Your task to perform on an android device: Who is the prime minister of the United Kingdom? Image 0: 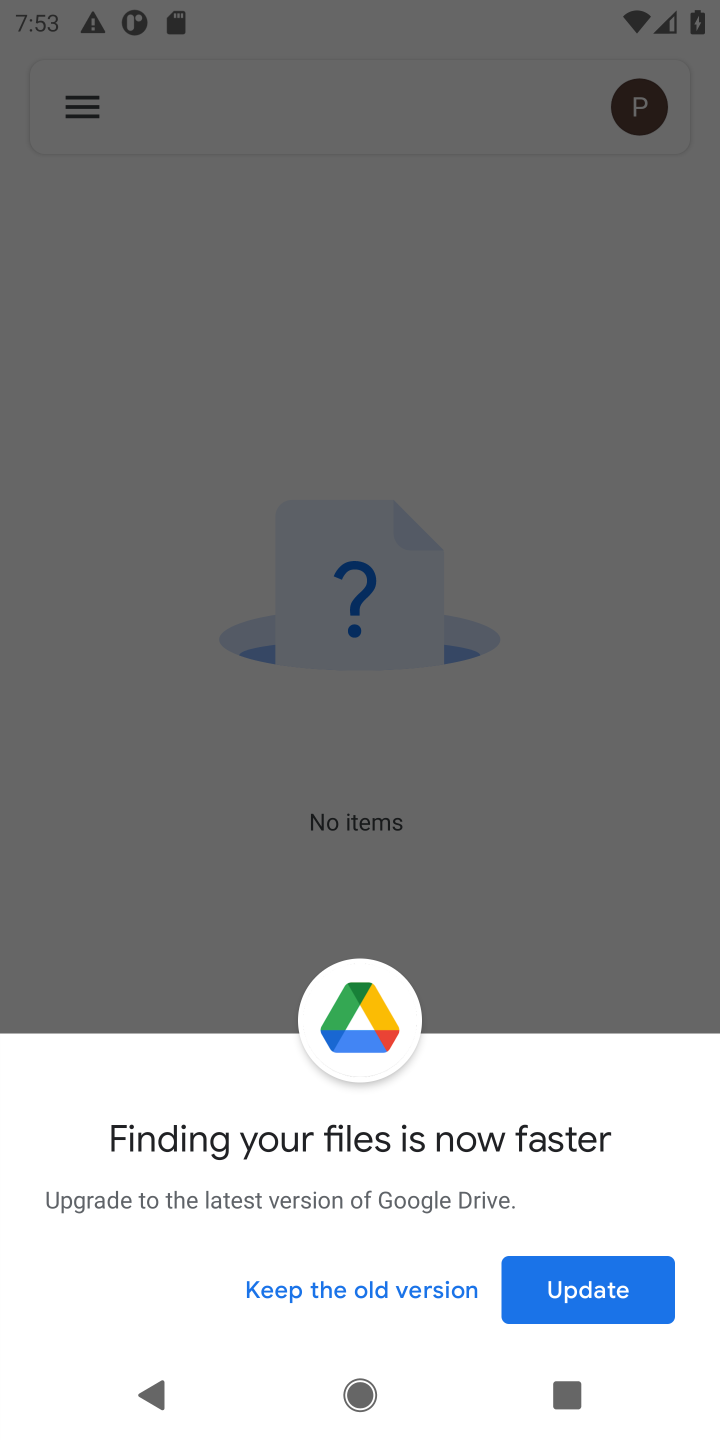
Step 0: press home button
Your task to perform on an android device: Who is the prime minister of the United Kingdom? Image 1: 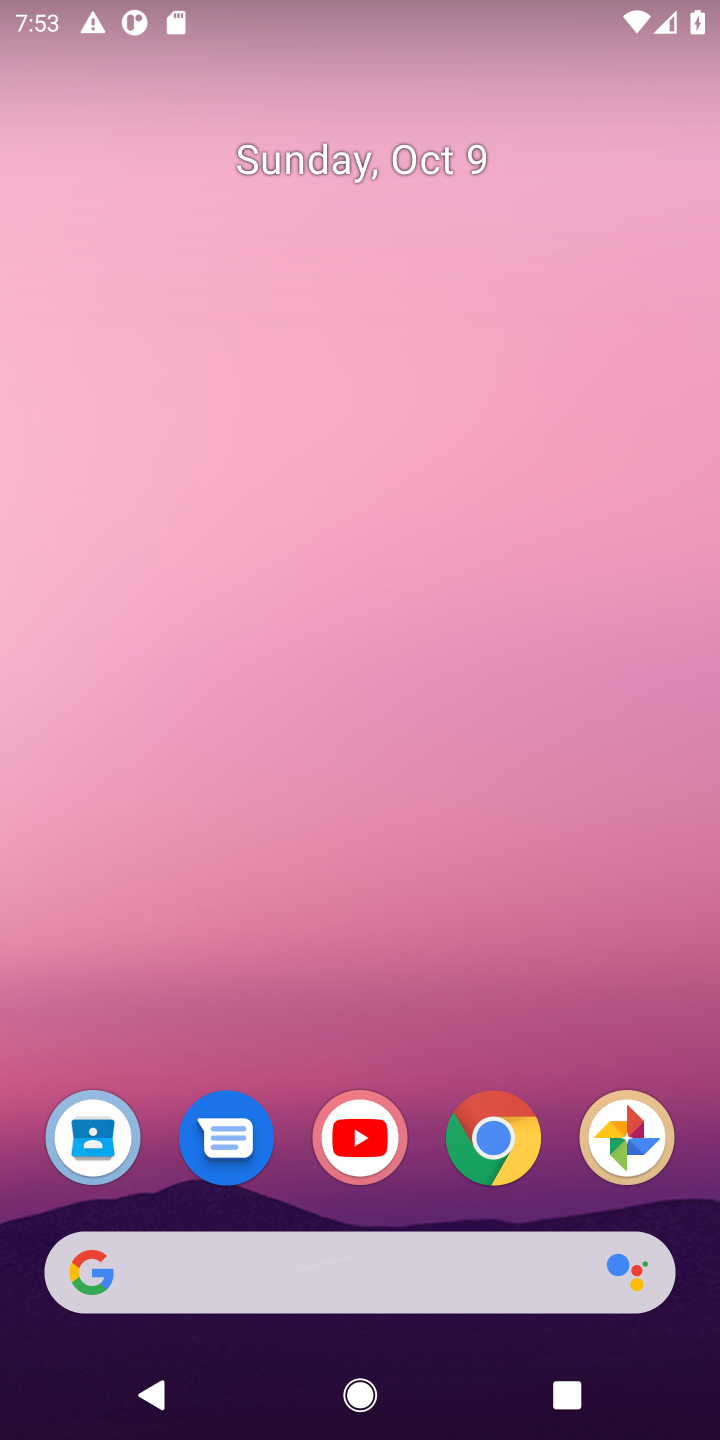
Step 1: drag from (356, 954) to (368, 302)
Your task to perform on an android device: Who is the prime minister of the United Kingdom? Image 2: 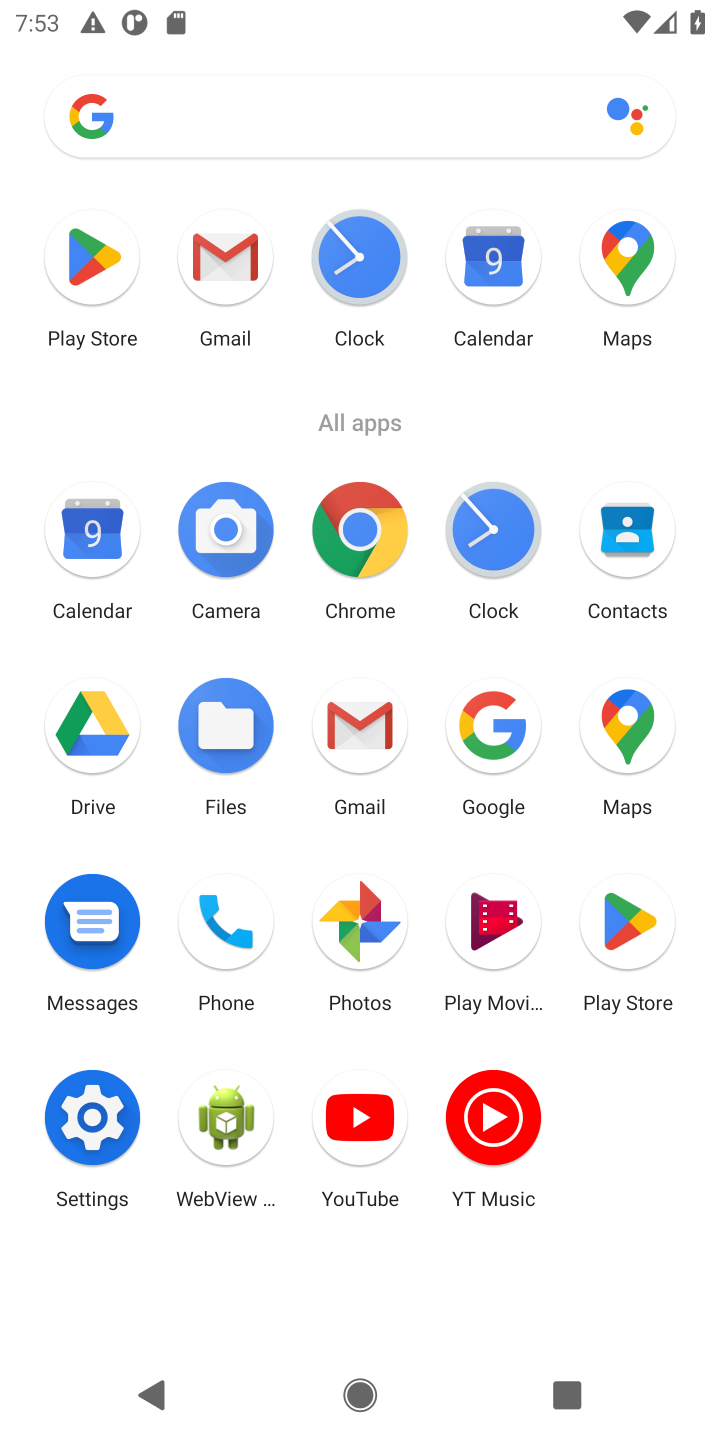
Step 2: click (471, 726)
Your task to perform on an android device: Who is the prime minister of the United Kingdom? Image 3: 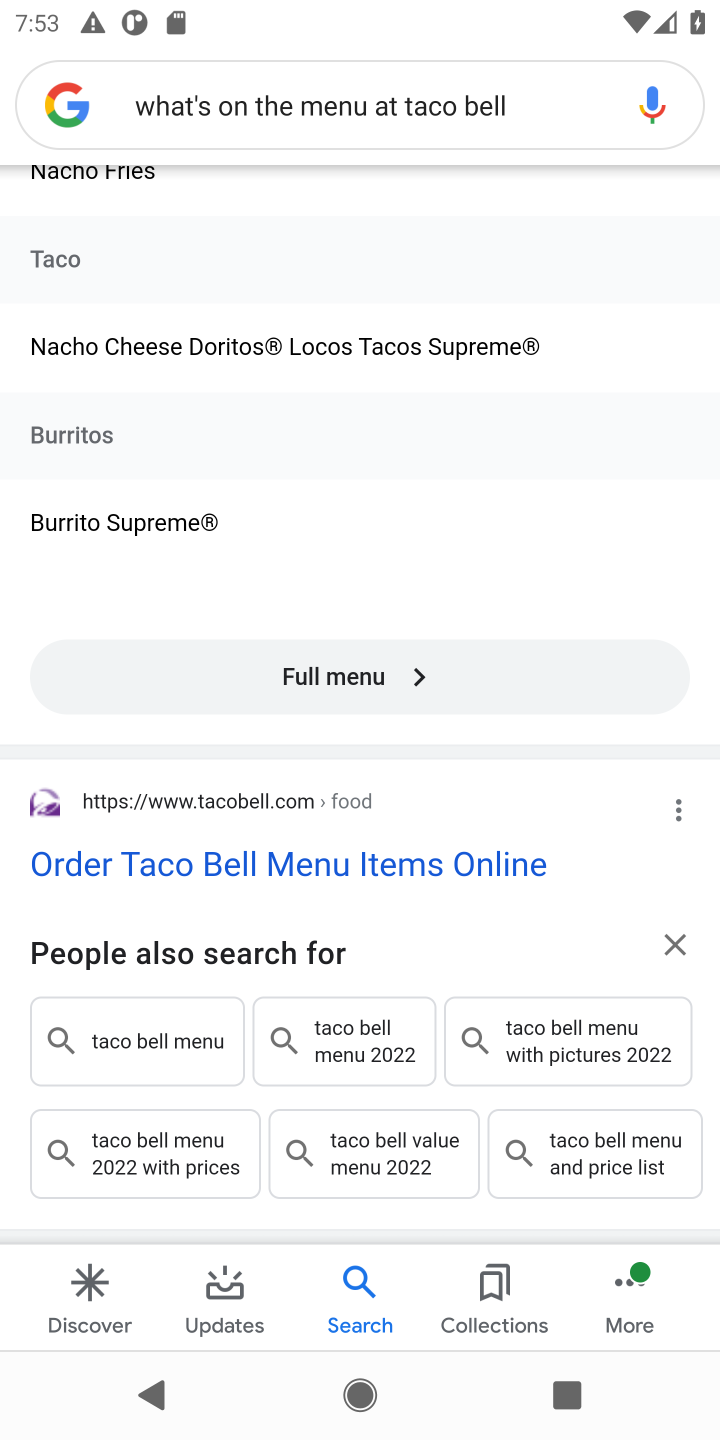
Step 3: click (508, 103)
Your task to perform on an android device: Who is the prime minister of the United Kingdom? Image 4: 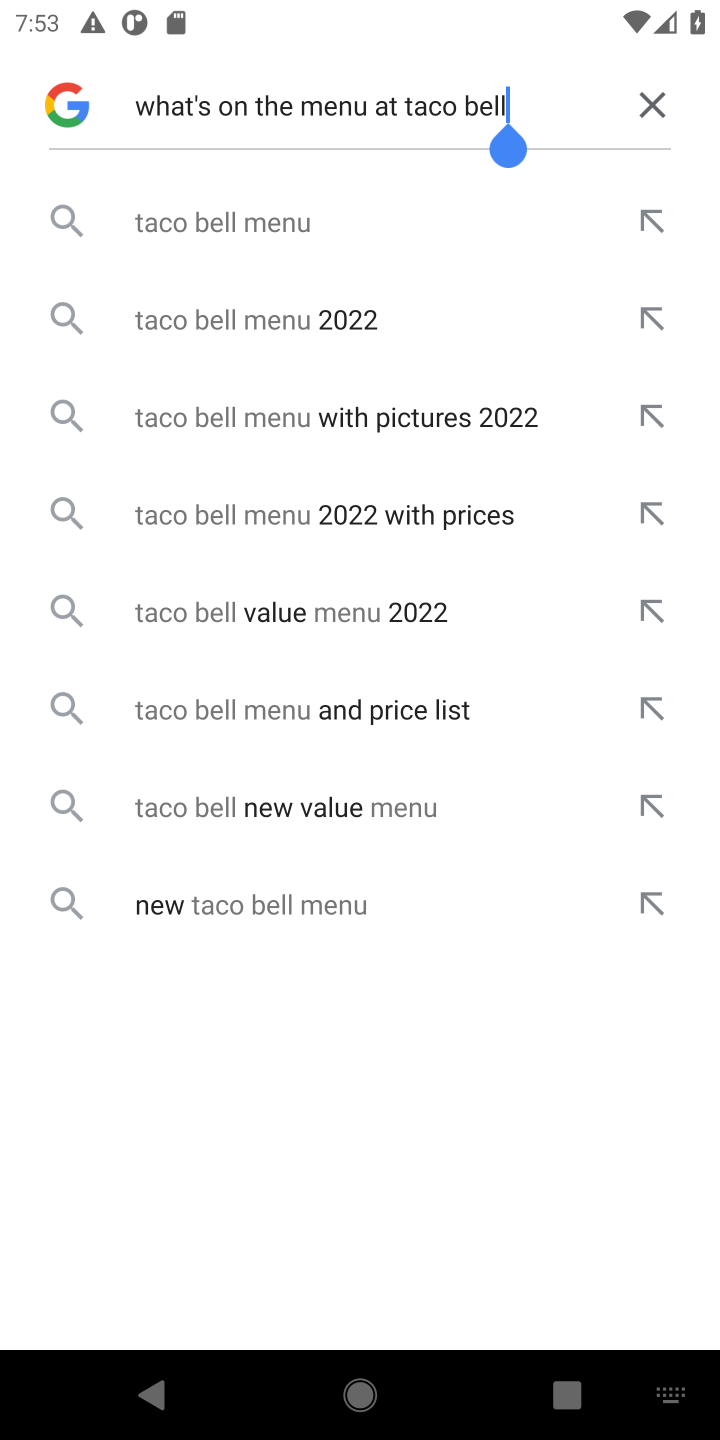
Step 4: click (648, 95)
Your task to perform on an android device: Who is the prime minister of the United Kingdom? Image 5: 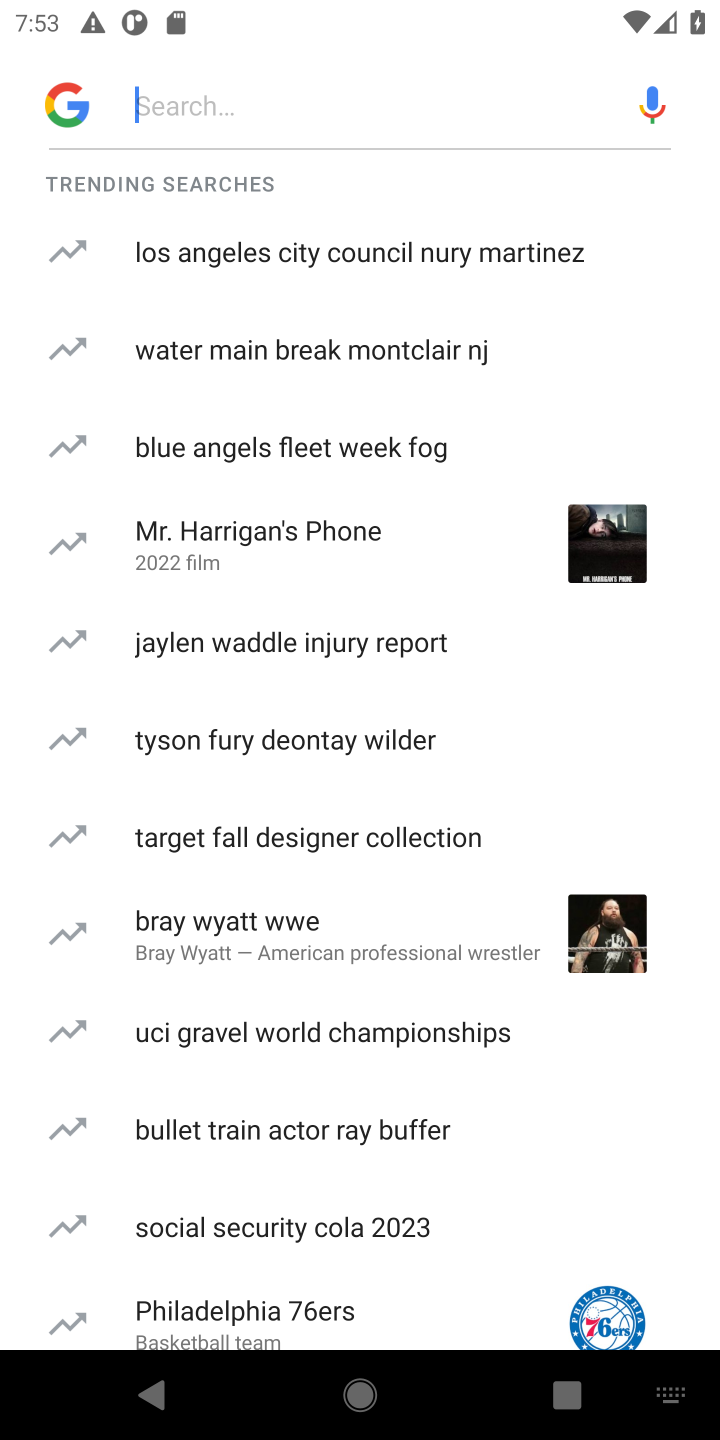
Step 5: click (255, 98)
Your task to perform on an android device: Who is the prime minister of the United Kingdom? Image 6: 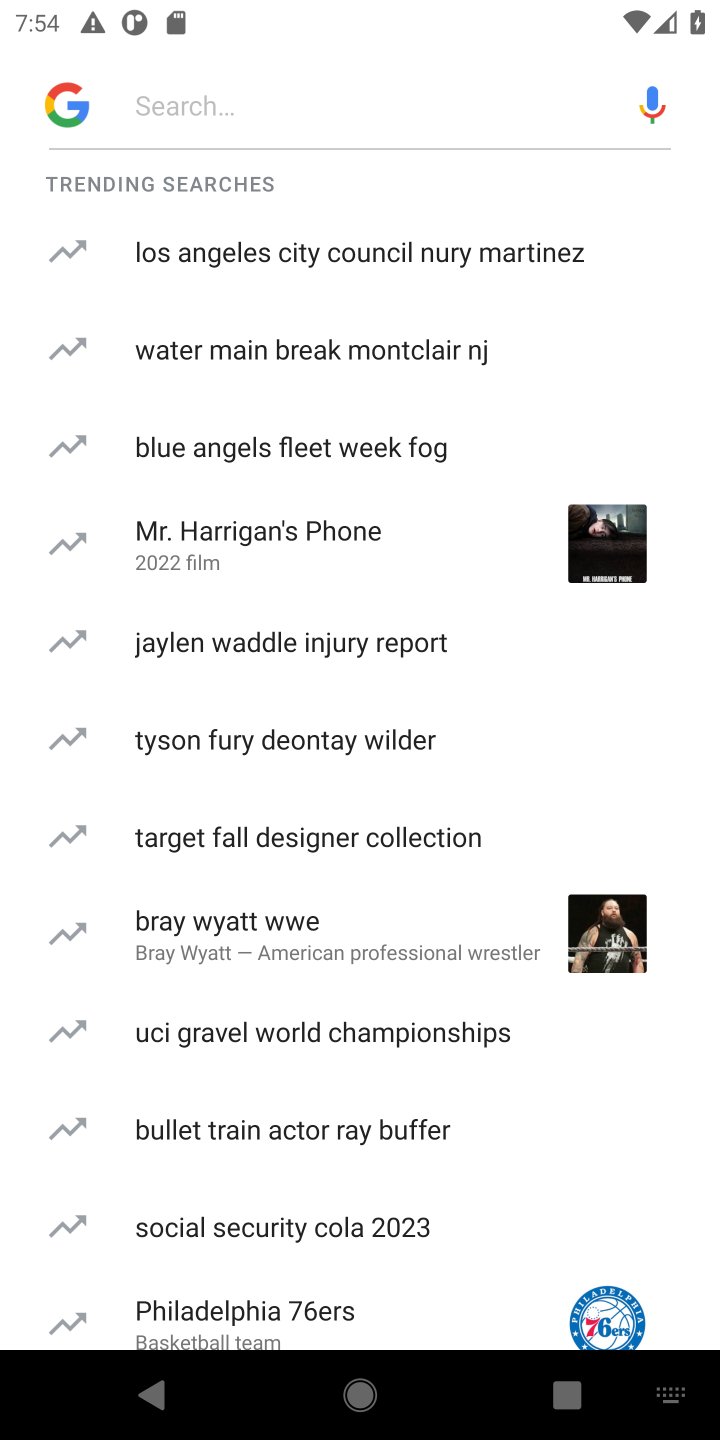
Step 6: type "Who is the prime minister of the United Kingdom "
Your task to perform on an android device: Who is the prime minister of the United Kingdom? Image 7: 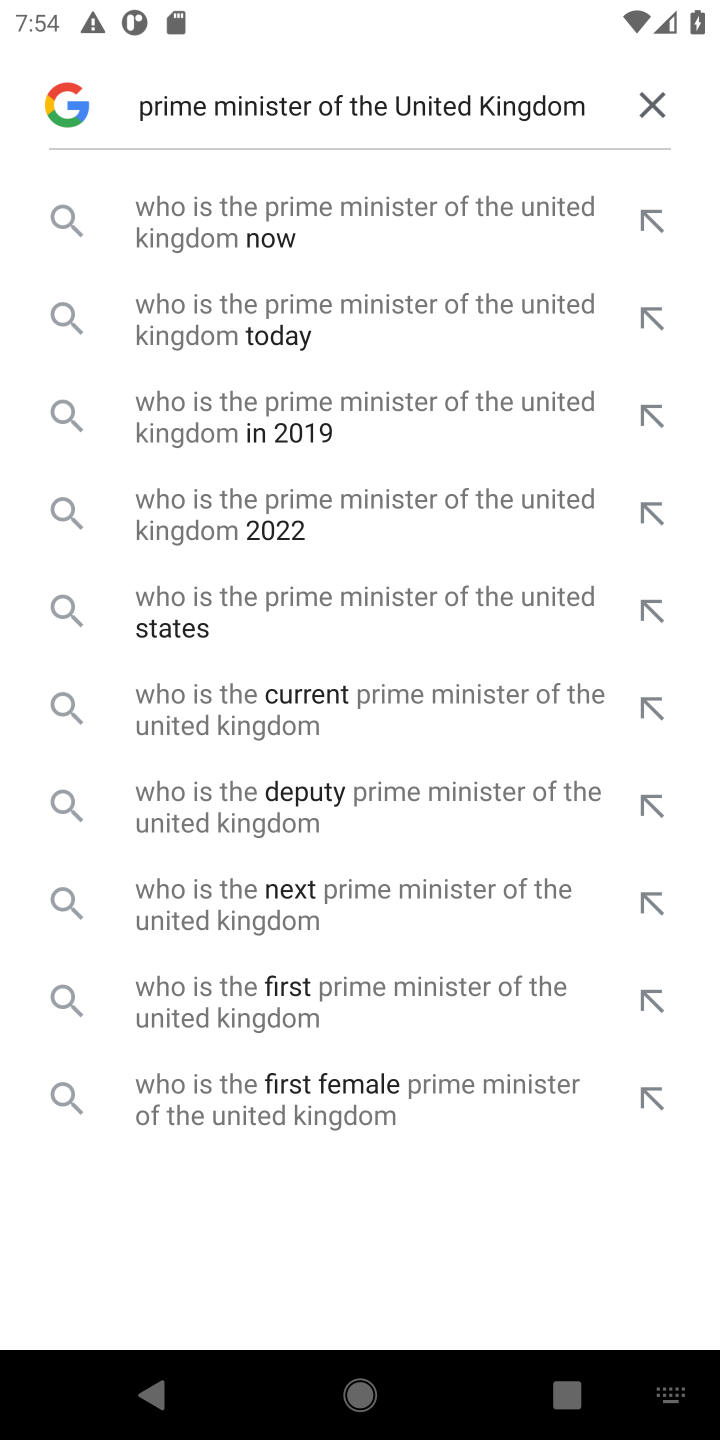
Step 7: click (233, 197)
Your task to perform on an android device: Who is the prime minister of the United Kingdom? Image 8: 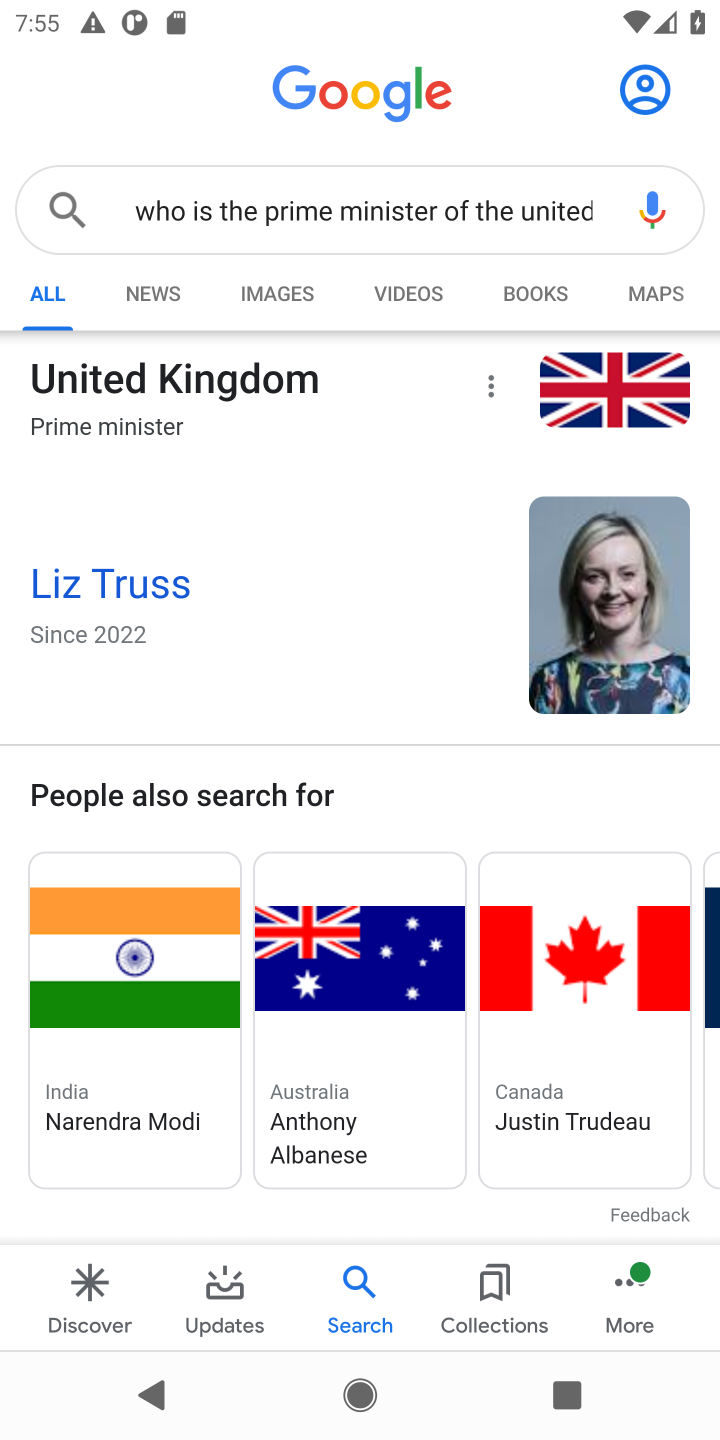
Step 8: task complete